Your task to perform on an android device: refresh tabs in the chrome app Image 0: 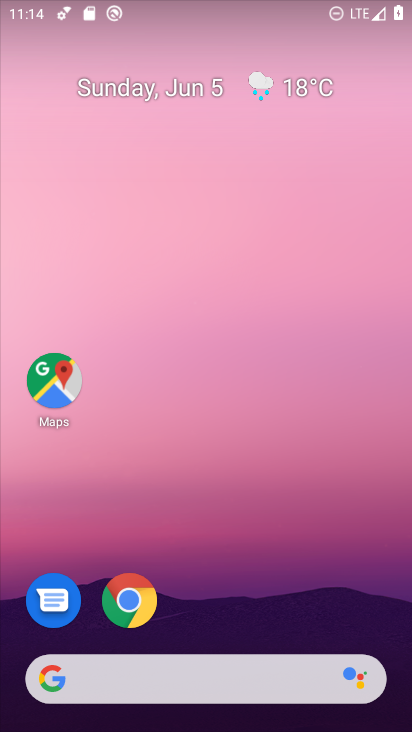
Step 0: click (144, 594)
Your task to perform on an android device: refresh tabs in the chrome app Image 1: 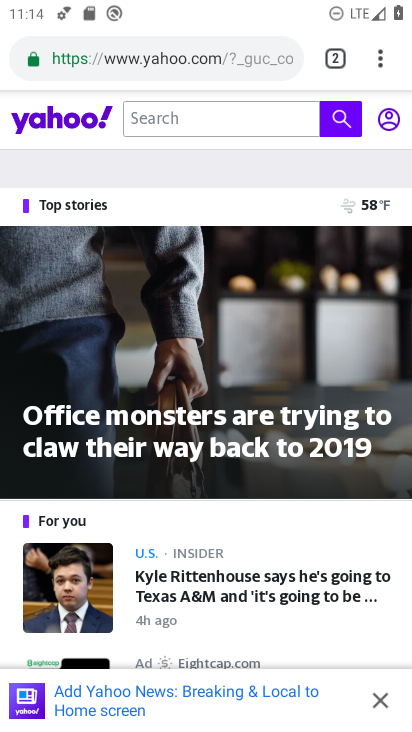
Step 1: click (385, 63)
Your task to perform on an android device: refresh tabs in the chrome app Image 2: 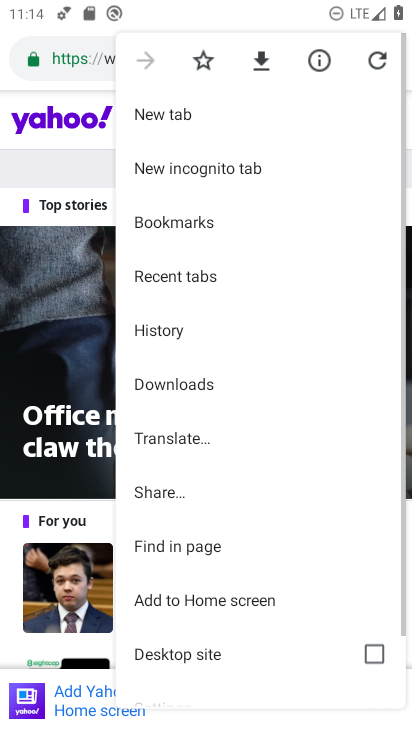
Step 2: click (373, 58)
Your task to perform on an android device: refresh tabs in the chrome app Image 3: 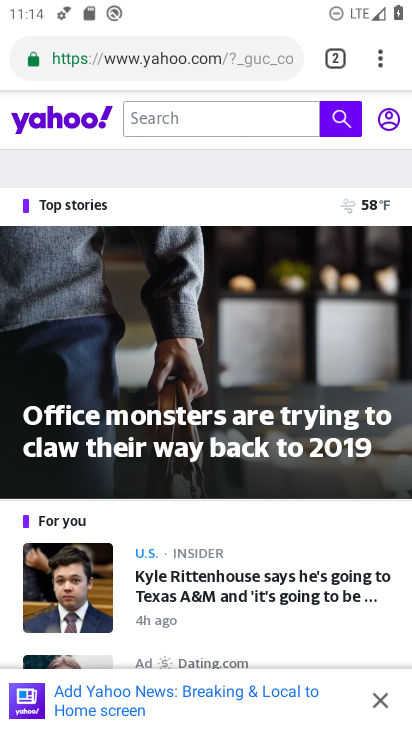
Step 3: task complete